Your task to perform on an android device: turn on the 12-hour format for clock Image 0: 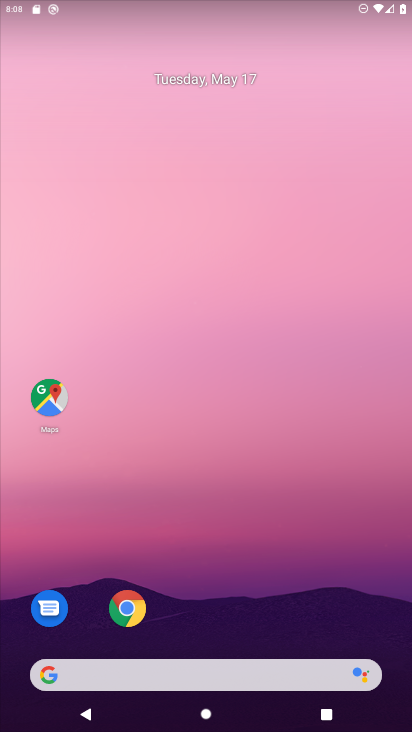
Step 0: drag from (198, 627) to (259, 0)
Your task to perform on an android device: turn on the 12-hour format for clock Image 1: 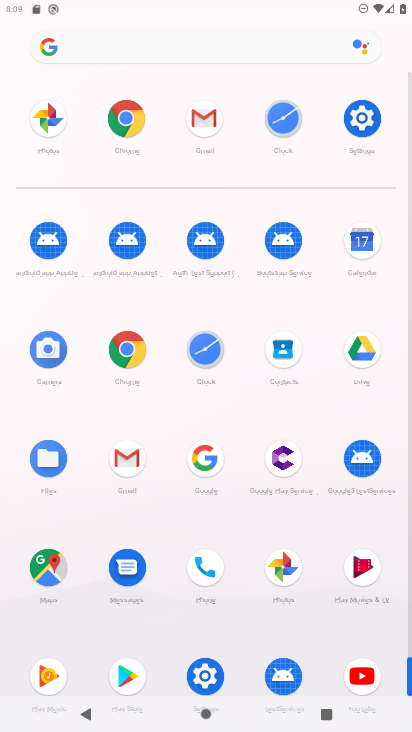
Step 1: click (197, 358)
Your task to perform on an android device: turn on the 12-hour format for clock Image 2: 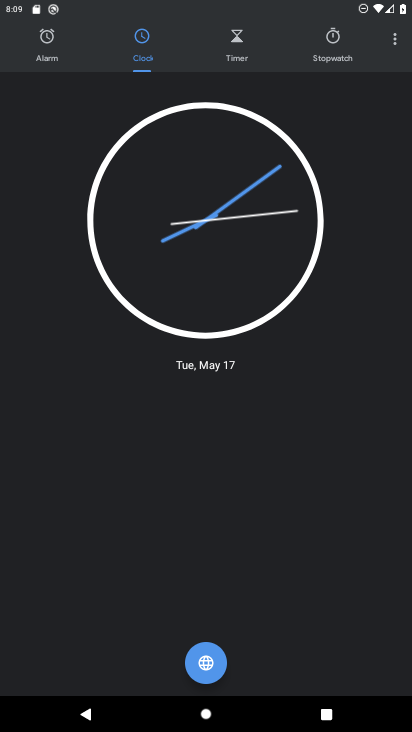
Step 2: click (389, 42)
Your task to perform on an android device: turn on the 12-hour format for clock Image 3: 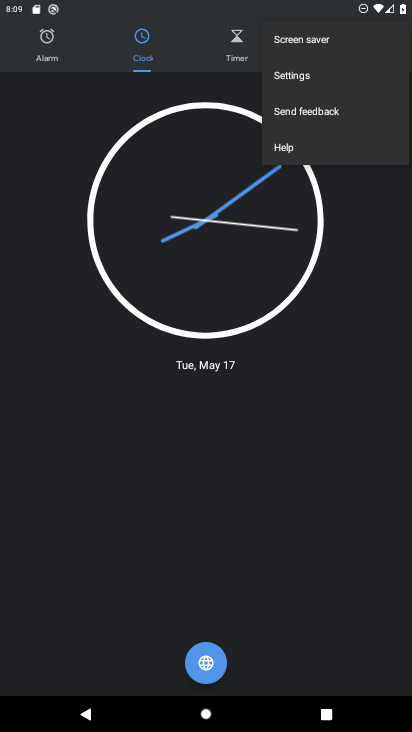
Step 3: click (297, 80)
Your task to perform on an android device: turn on the 12-hour format for clock Image 4: 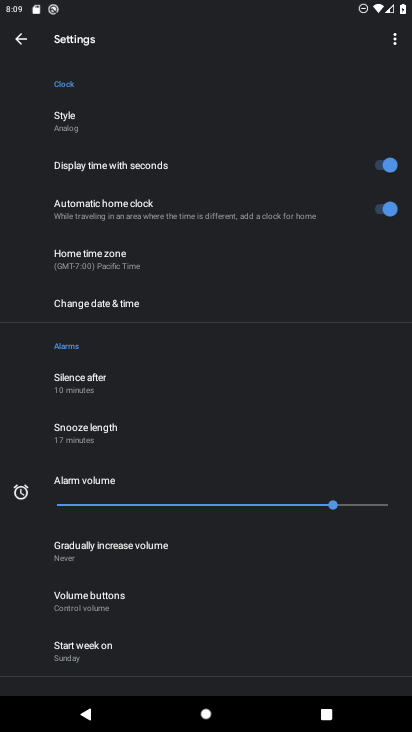
Step 4: press home button
Your task to perform on an android device: turn on the 12-hour format for clock Image 5: 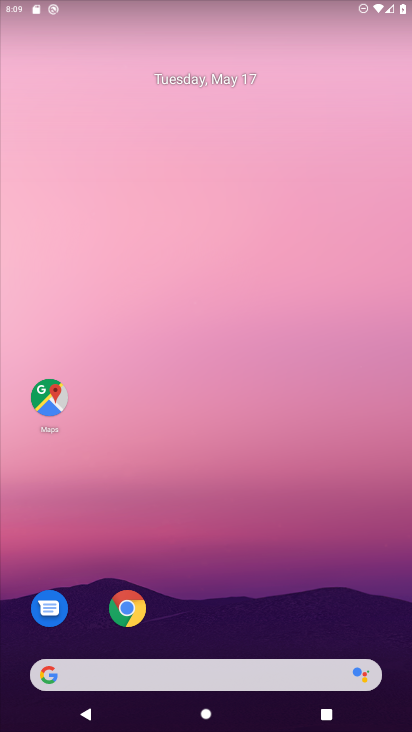
Step 5: drag from (222, 586) to (229, 49)
Your task to perform on an android device: turn on the 12-hour format for clock Image 6: 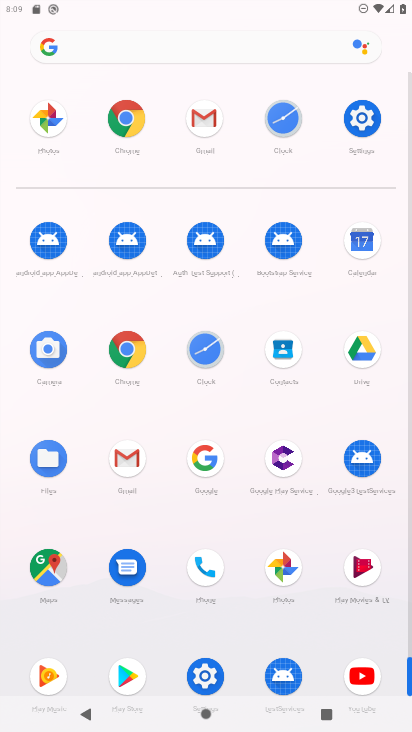
Step 6: click (372, 131)
Your task to perform on an android device: turn on the 12-hour format for clock Image 7: 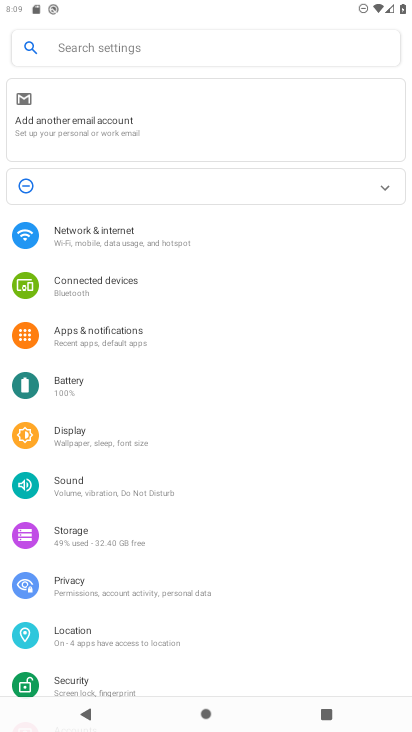
Step 7: drag from (94, 620) to (129, 397)
Your task to perform on an android device: turn on the 12-hour format for clock Image 8: 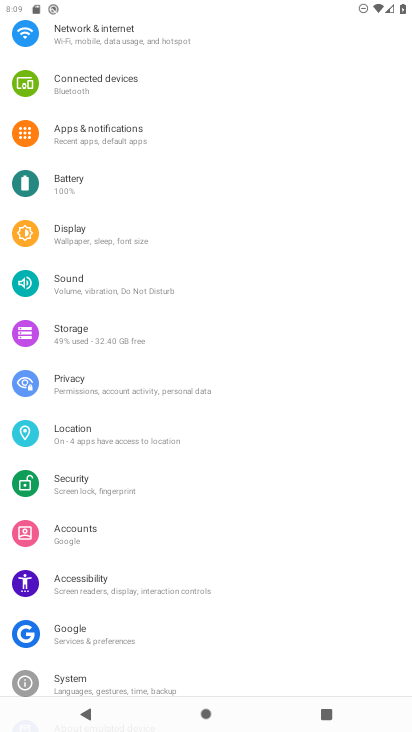
Step 8: click (78, 679)
Your task to perform on an android device: turn on the 12-hour format for clock Image 9: 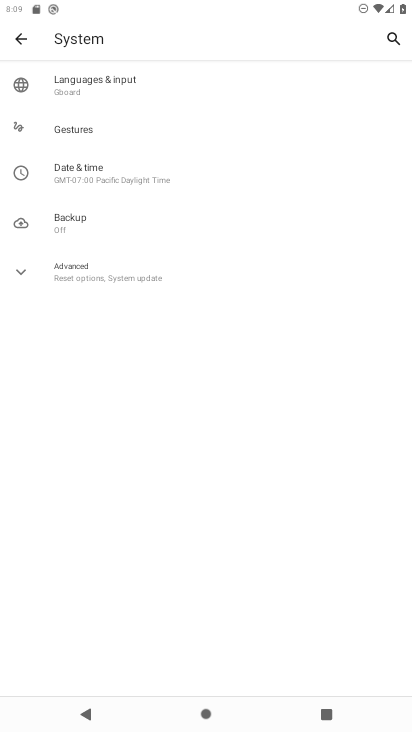
Step 9: click (106, 180)
Your task to perform on an android device: turn on the 12-hour format for clock Image 10: 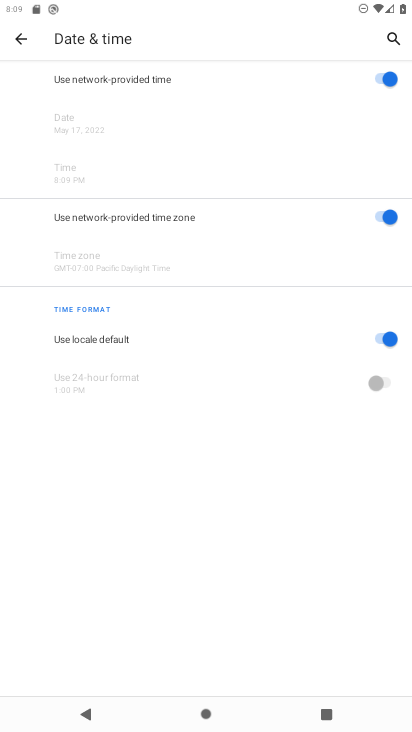
Step 10: task complete